Your task to perform on an android device: turn off notifications settings in the gmail app Image 0: 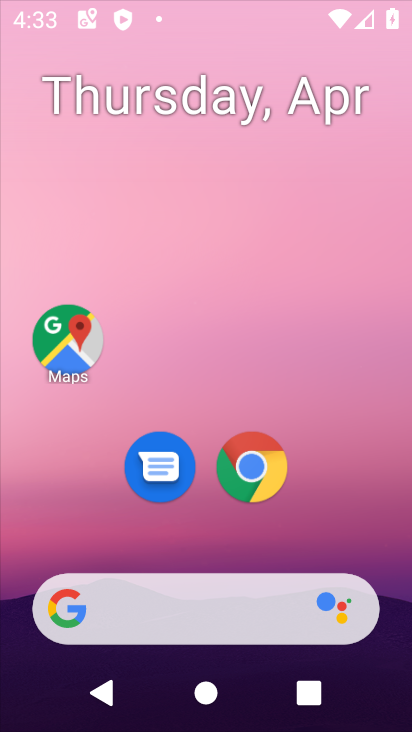
Step 0: drag from (199, 334) to (263, 135)
Your task to perform on an android device: turn off notifications settings in the gmail app Image 1: 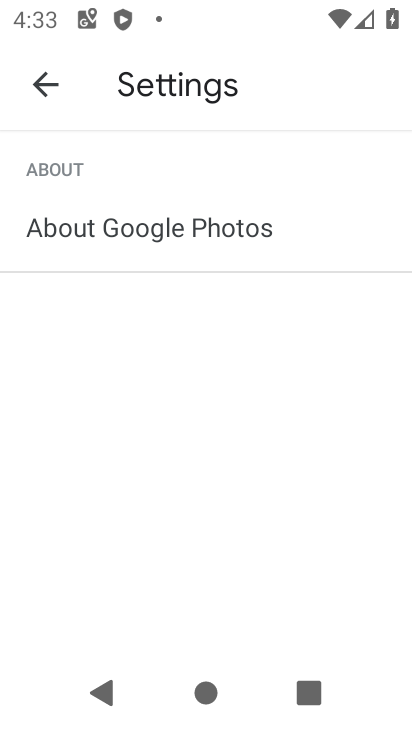
Step 1: press home button
Your task to perform on an android device: turn off notifications settings in the gmail app Image 2: 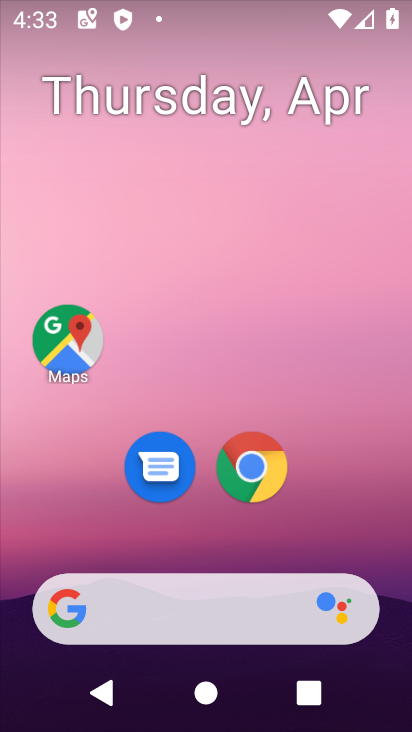
Step 2: drag from (244, 545) to (258, 90)
Your task to perform on an android device: turn off notifications settings in the gmail app Image 3: 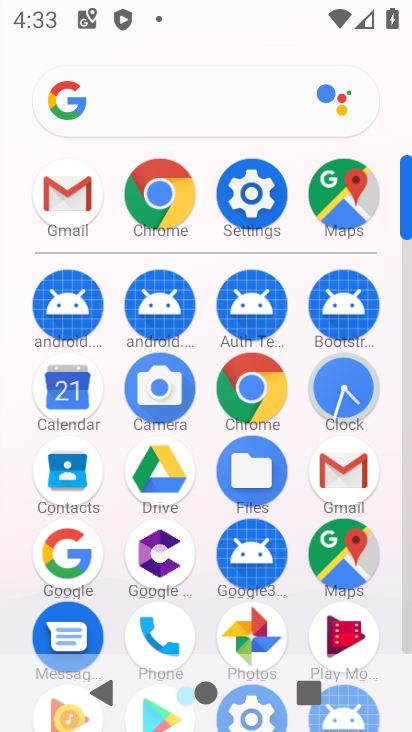
Step 3: click (353, 462)
Your task to perform on an android device: turn off notifications settings in the gmail app Image 4: 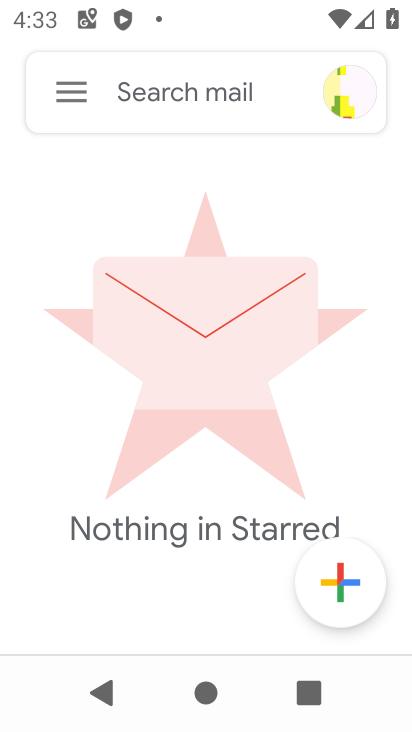
Step 4: click (71, 97)
Your task to perform on an android device: turn off notifications settings in the gmail app Image 5: 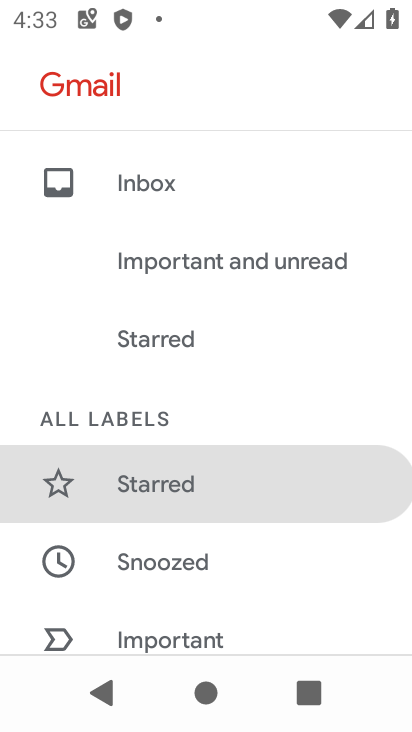
Step 5: drag from (145, 568) to (193, 265)
Your task to perform on an android device: turn off notifications settings in the gmail app Image 6: 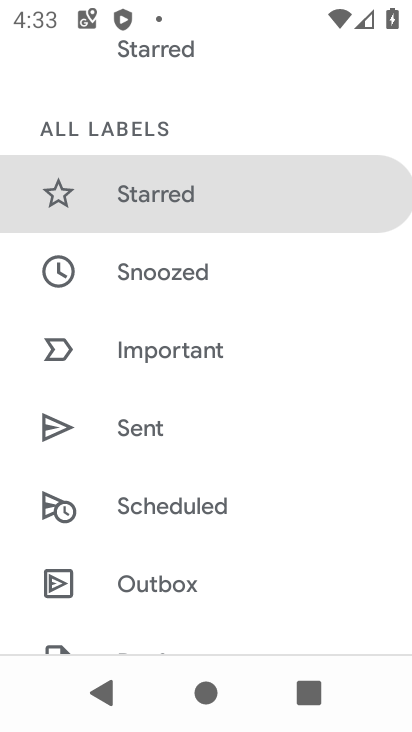
Step 6: drag from (122, 527) to (183, 216)
Your task to perform on an android device: turn off notifications settings in the gmail app Image 7: 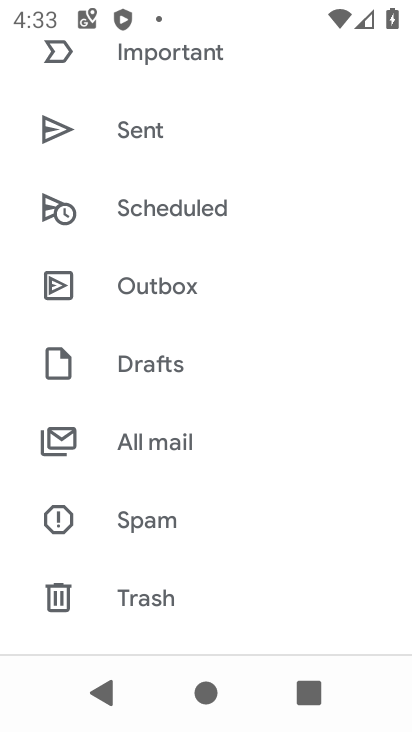
Step 7: drag from (136, 508) to (186, 153)
Your task to perform on an android device: turn off notifications settings in the gmail app Image 8: 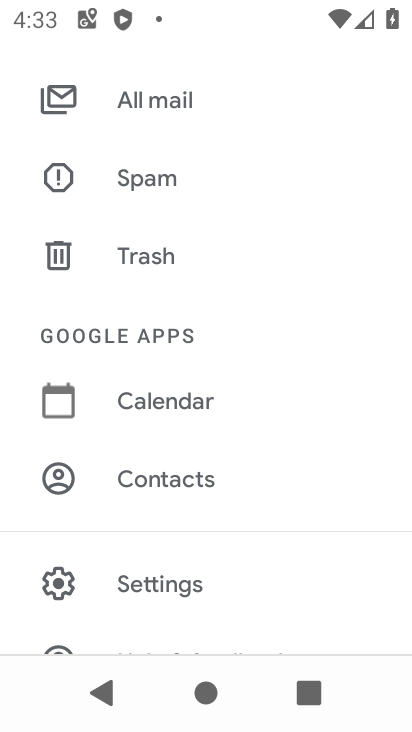
Step 8: drag from (149, 629) to (197, 220)
Your task to perform on an android device: turn off notifications settings in the gmail app Image 9: 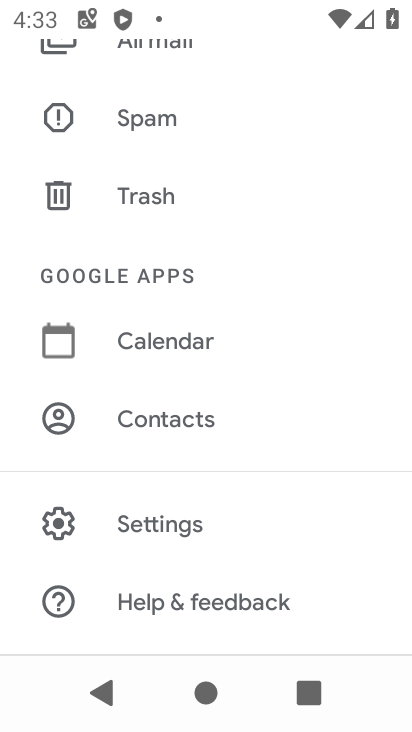
Step 9: click (131, 536)
Your task to perform on an android device: turn off notifications settings in the gmail app Image 10: 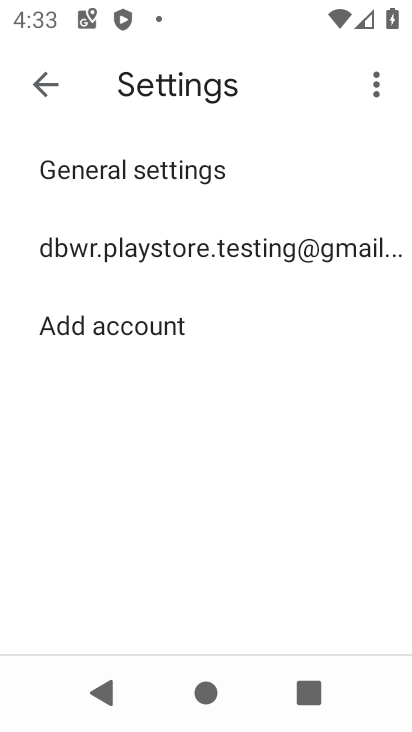
Step 10: click (158, 177)
Your task to perform on an android device: turn off notifications settings in the gmail app Image 11: 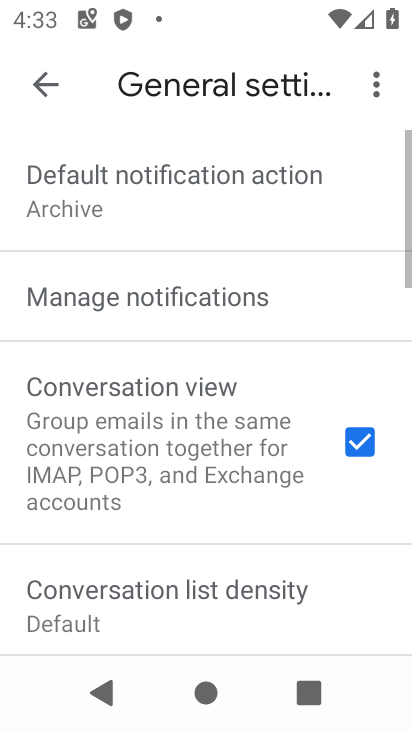
Step 11: click (166, 304)
Your task to perform on an android device: turn off notifications settings in the gmail app Image 12: 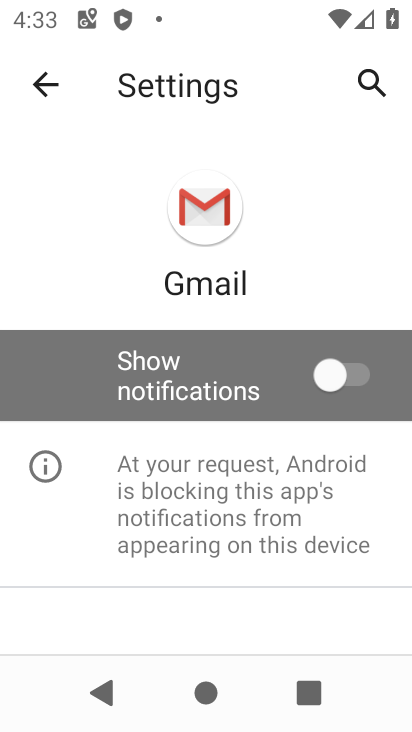
Step 12: task complete